Your task to perform on an android device: turn off wifi Image 0: 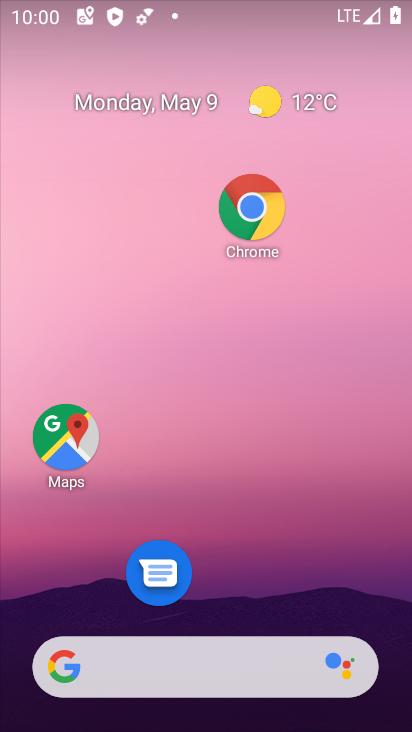
Step 0: drag from (284, 640) to (294, 196)
Your task to perform on an android device: turn off wifi Image 1: 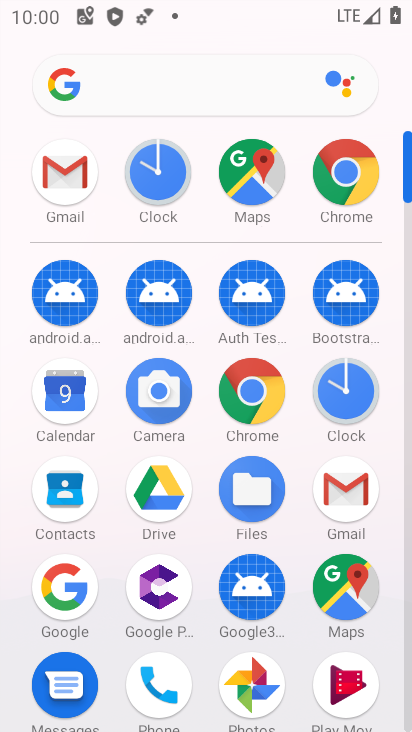
Step 1: drag from (233, 409) to (255, 1)
Your task to perform on an android device: turn off wifi Image 2: 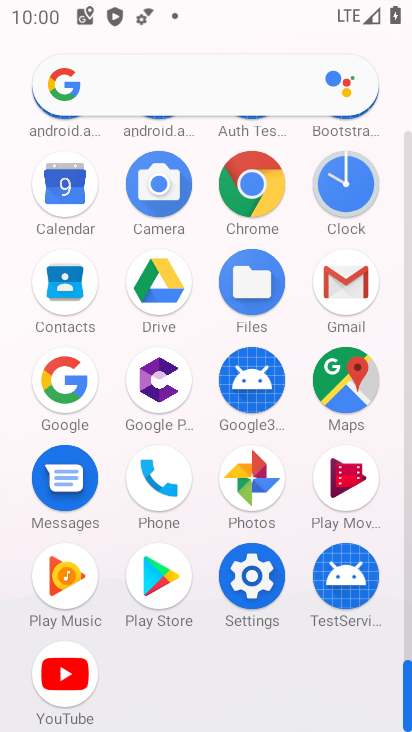
Step 2: click (241, 625)
Your task to perform on an android device: turn off wifi Image 3: 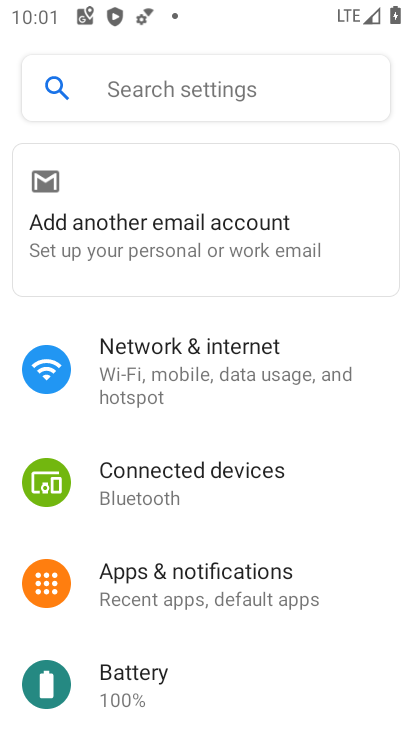
Step 3: click (305, 352)
Your task to perform on an android device: turn off wifi Image 4: 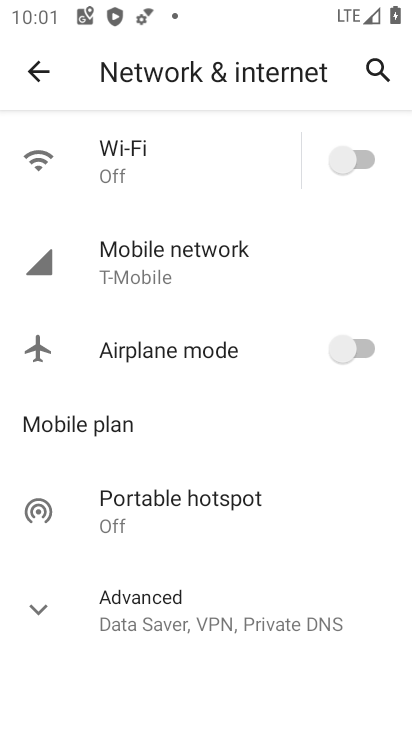
Step 4: task complete